Your task to perform on an android device: turn on the 12-hour format for clock Image 0: 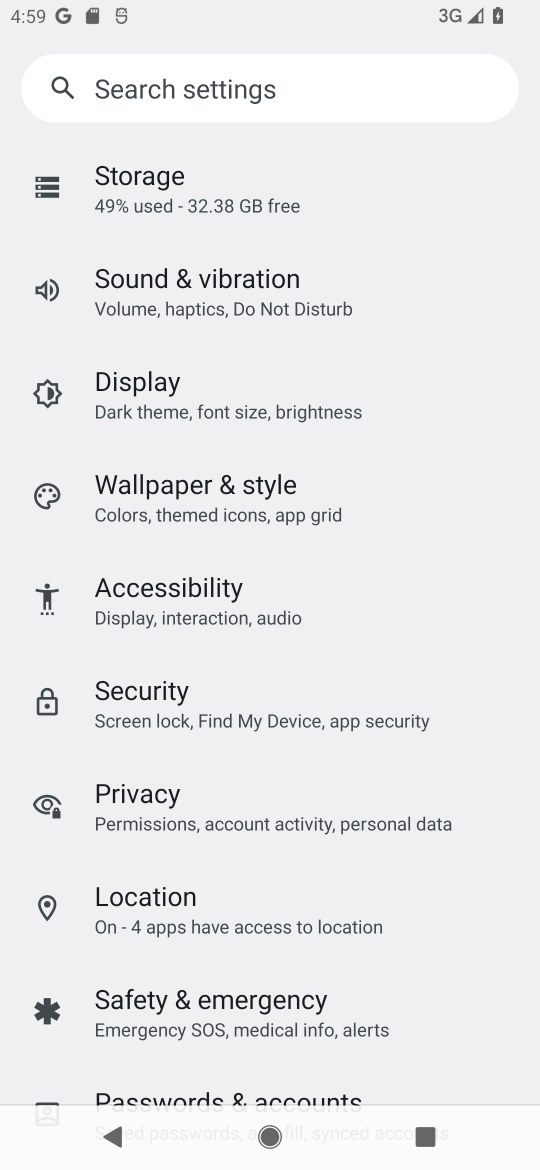
Step 0: press back button
Your task to perform on an android device: turn on the 12-hour format for clock Image 1: 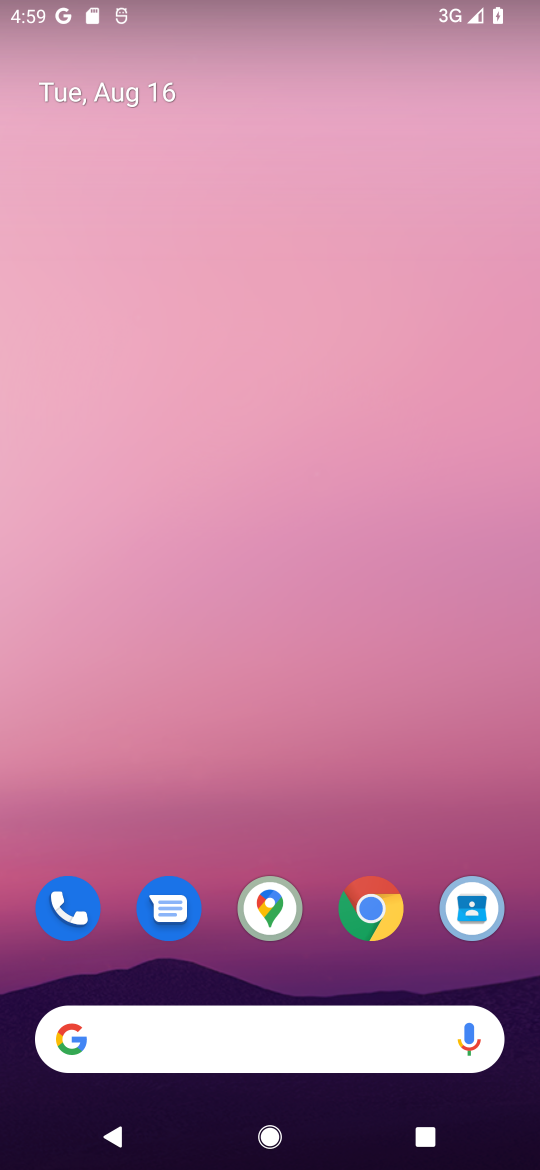
Step 1: drag from (260, 885) to (400, 36)
Your task to perform on an android device: turn on the 12-hour format for clock Image 2: 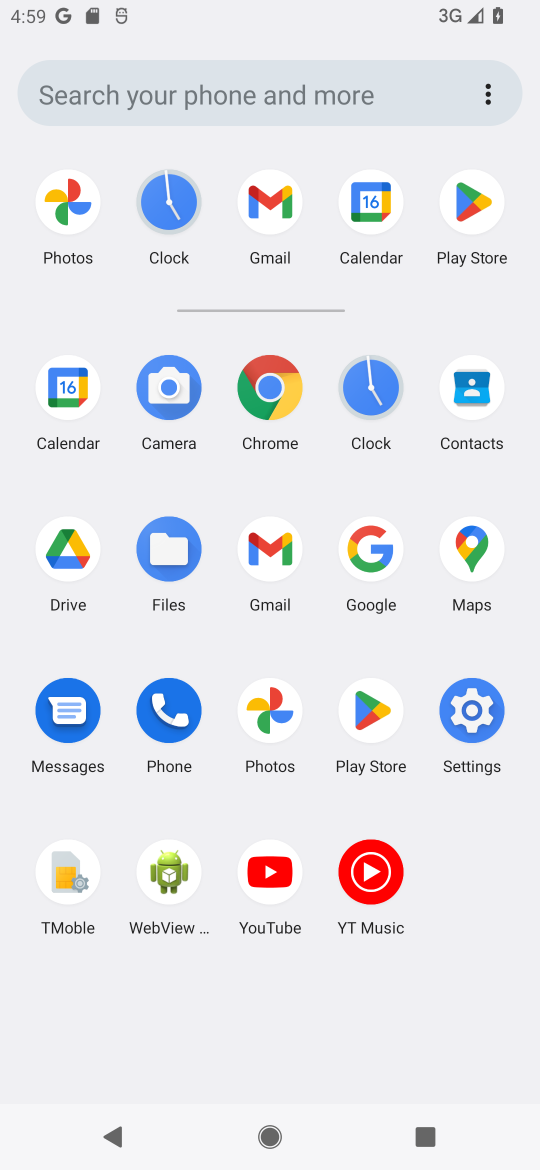
Step 2: click (382, 414)
Your task to perform on an android device: turn on the 12-hour format for clock Image 3: 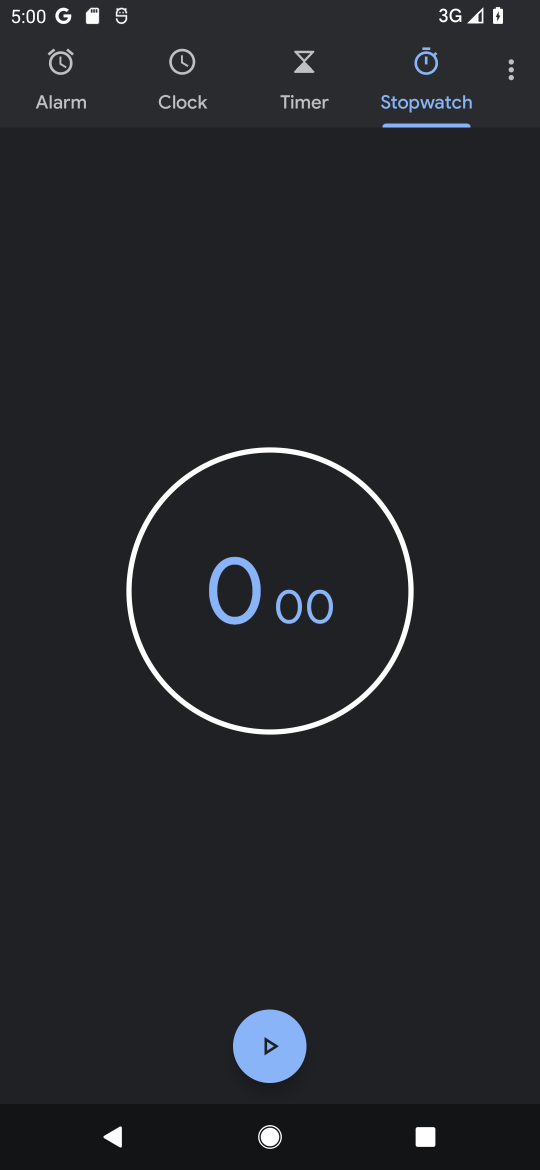
Step 3: click (515, 83)
Your task to perform on an android device: turn on the 12-hour format for clock Image 4: 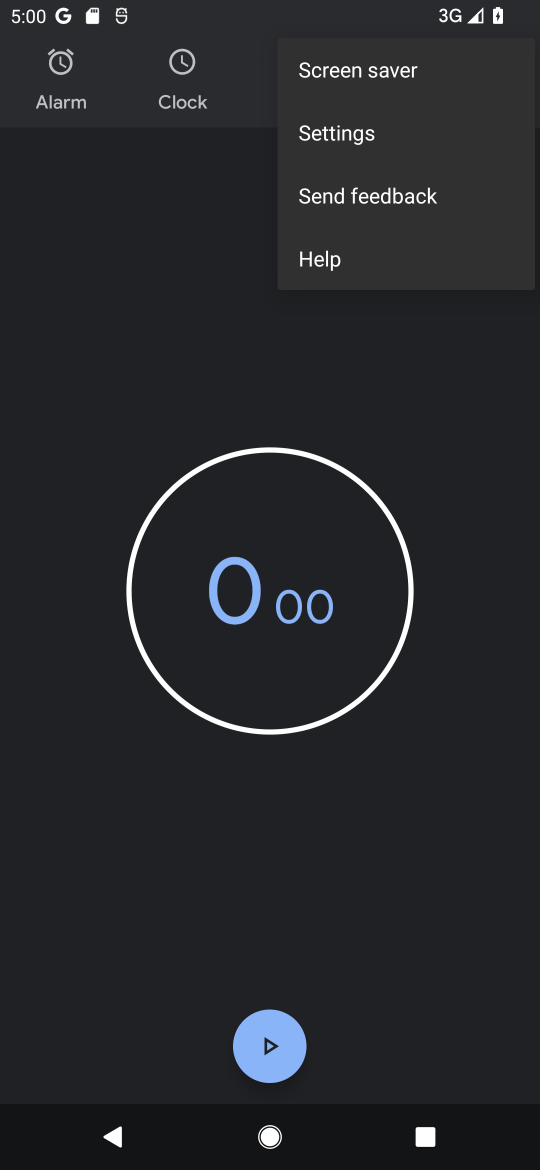
Step 4: click (331, 143)
Your task to perform on an android device: turn on the 12-hour format for clock Image 5: 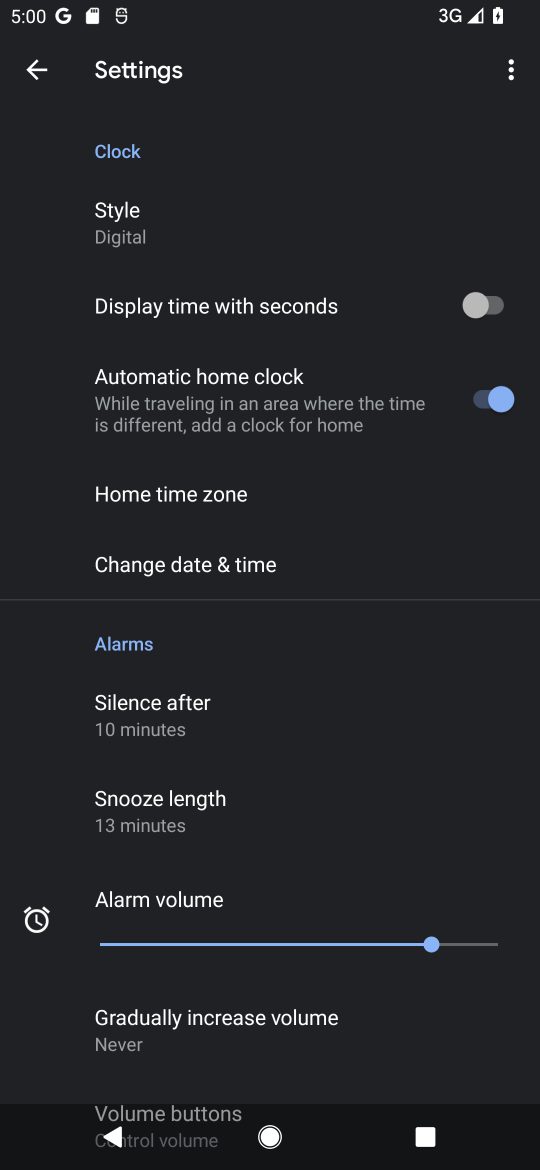
Step 5: click (241, 567)
Your task to perform on an android device: turn on the 12-hour format for clock Image 6: 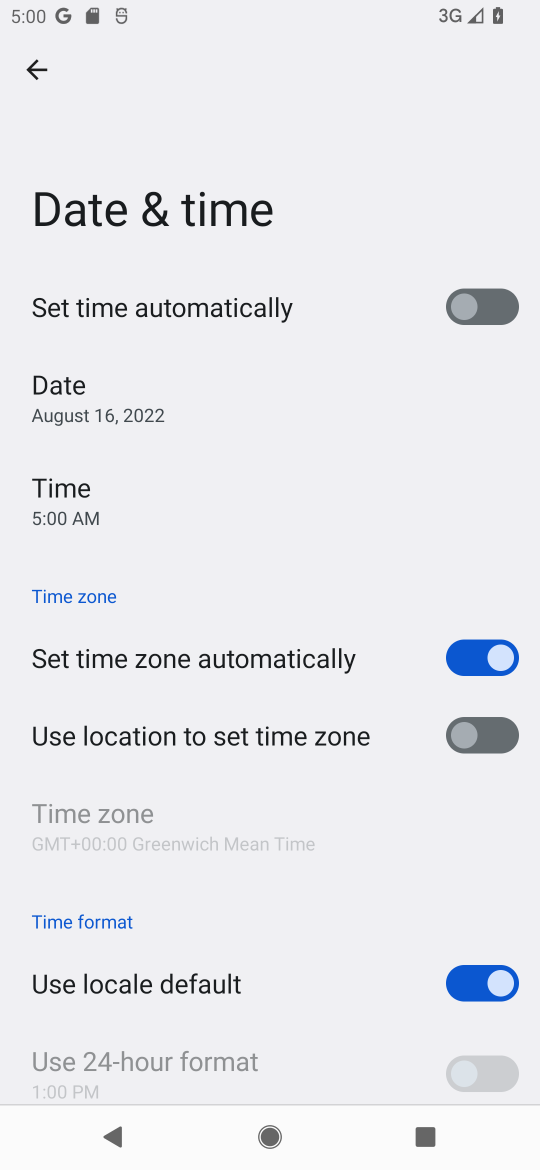
Step 6: task complete